Your task to perform on an android device: manage bookmarks in the chrome app Image 0: 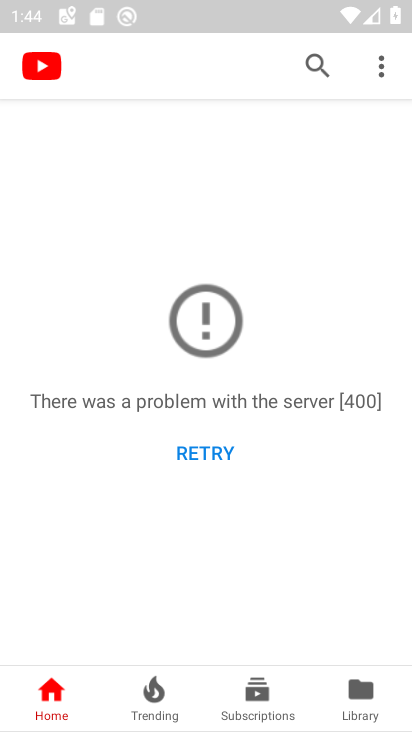
Step 0: press home button
Your task to perform on an android device: manage bookmarks in the chrome app Image 1: 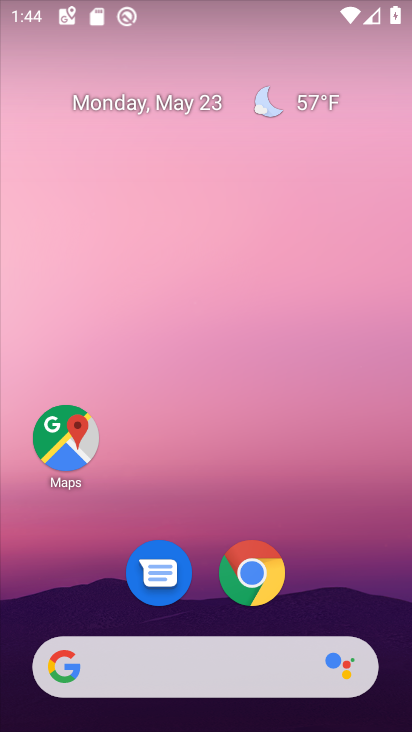
Step 1: click (256, 576)
Your task to perform on an android device: manage bookmarks in the chrome app Image 2: 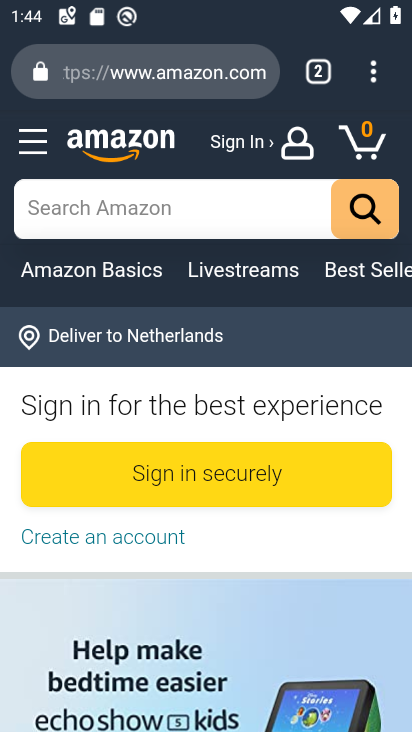
Step 2: click (376, 68)
Your task to perform on an android device: manage bookmarks in the chrome app Image 3: 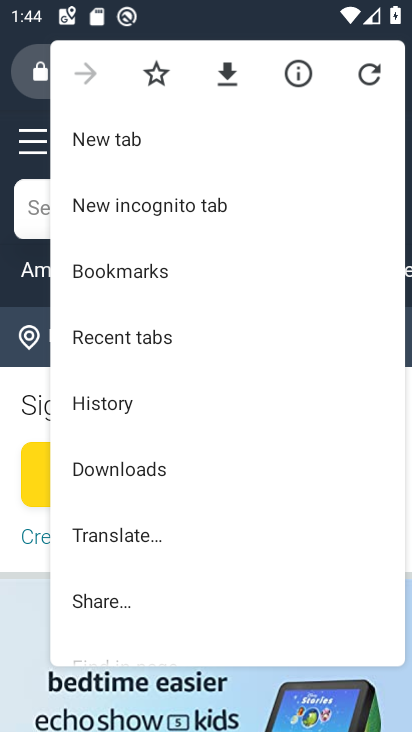
Step 3: click (138, 271)
Your task to perform on an android device: manage bookmarks in the chrome app Image 4: 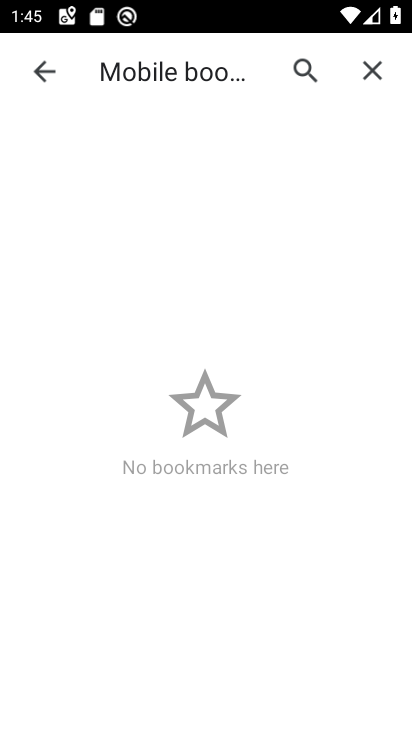
Step 4: task complete